Your task to perform on an android device: open the mobile data screen to see how much data has been used Image 0: 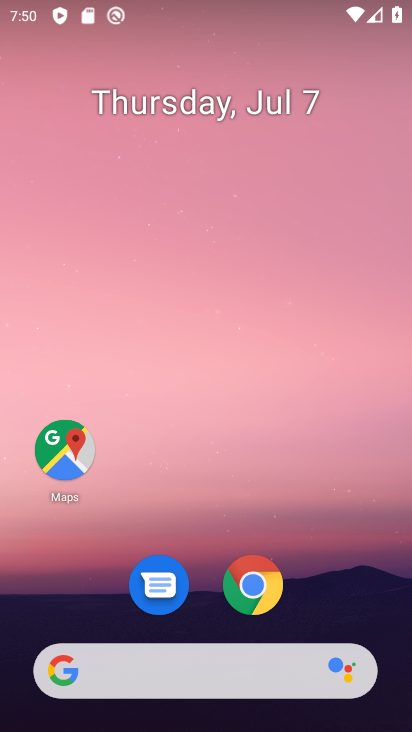
Step 0: drag from (326, 584) to (335, 59)
Your task to perform on an android device: open the mobile data screen to see how much data has been used Image 1: 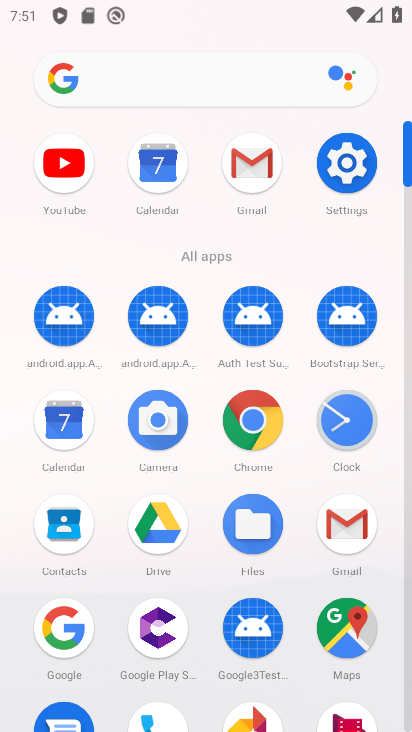
Step 1: click (341, 160)
Your task to perform on an android device: open the mobile data screen to see how much data has been used Image 2: 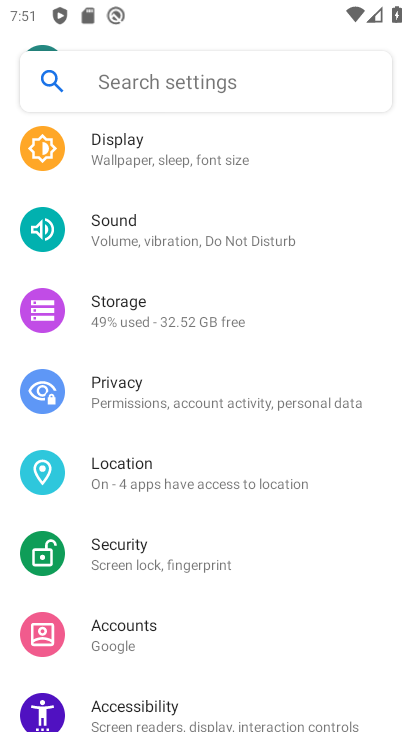
Step 2: drag from (250, 239) to (231, 585)
Your task to perform on an android device: open the mobile data screen to see how much data has been used Image 3: 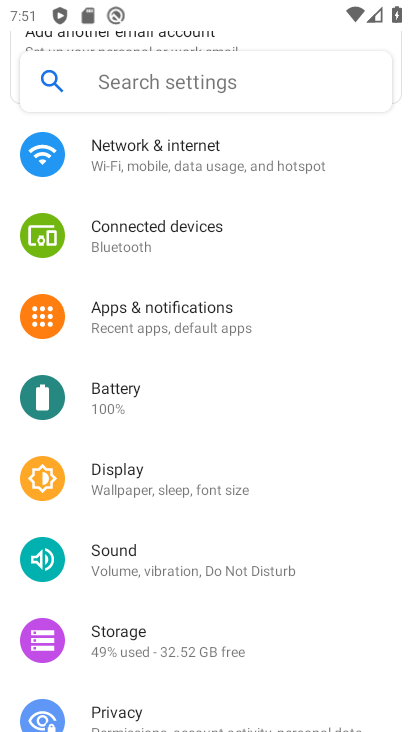
Step 3: drag from (226, 281) to (224, 522)
Your task to perform on an android device: open the mobile data screen to see how much data has been used Image 4: 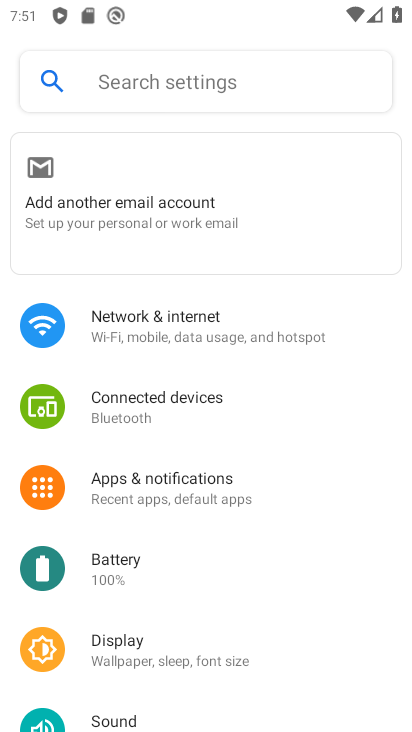
Step 4: click (231, 330)
Your task to perform on an android device: open the mobile data screen to see how much data has been used Image 5: 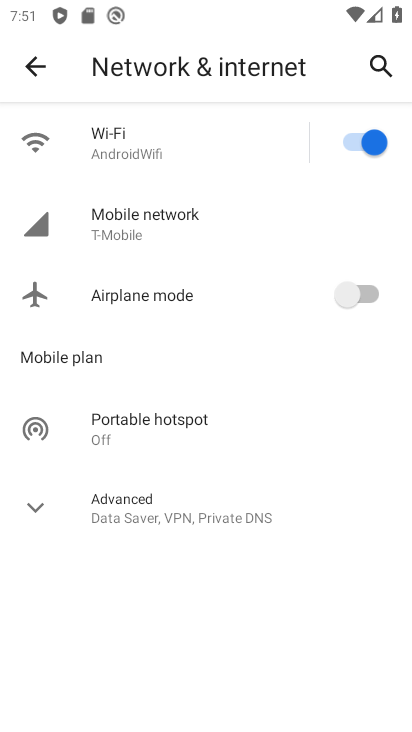
Step 5: click (196, 212)
Your task to perform on an android device: open the mobile data screen to see how much data has been used Image 6: 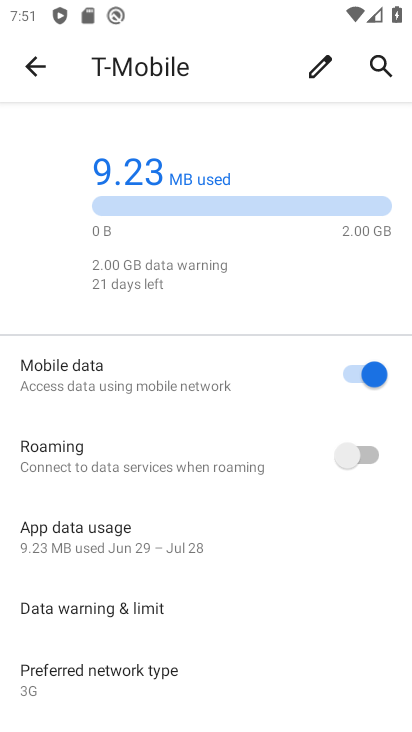
Step 6: task complete